Your task to perform on an android device: turn on sleep mode Image 0: 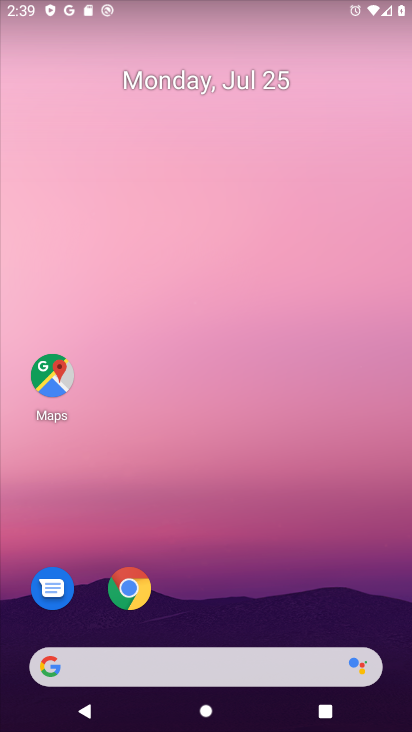
Step 0: press home button
Your task to perform on an android device: turn on sleep mode Image 1: 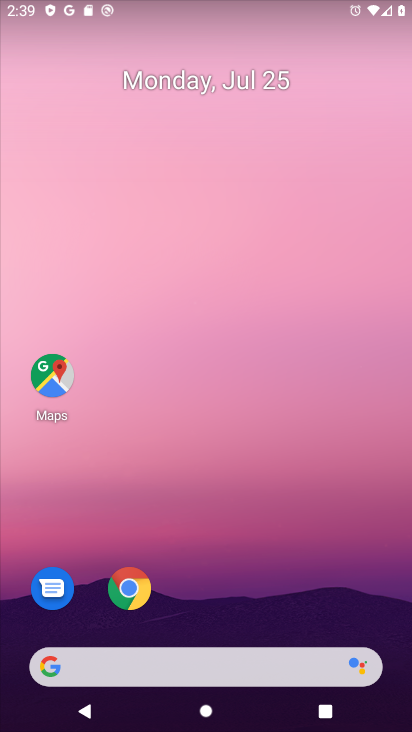
Step 1: drag from (214, 627) to (190, 27)
Your task to perform on an android device: turn on sleep mode Image 2: 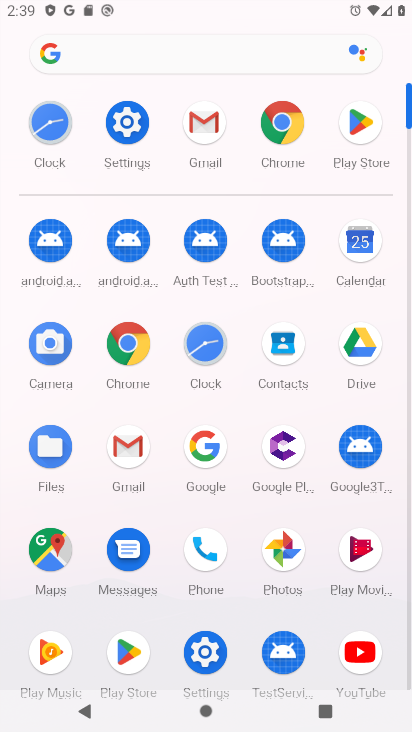
Step 2: click (127, 118)
Your task to perform on an android device: turn on sleep mode Image 3: 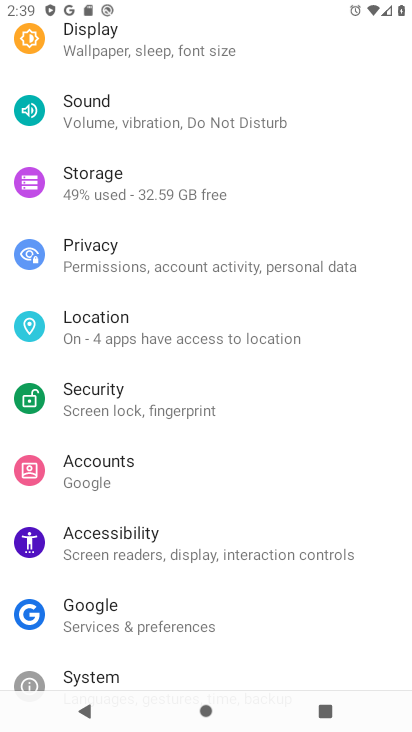
Step 3: drag from (183, 111) to (221, 413)
Your task to perform on an android device: turn on sleep mode Image 4: 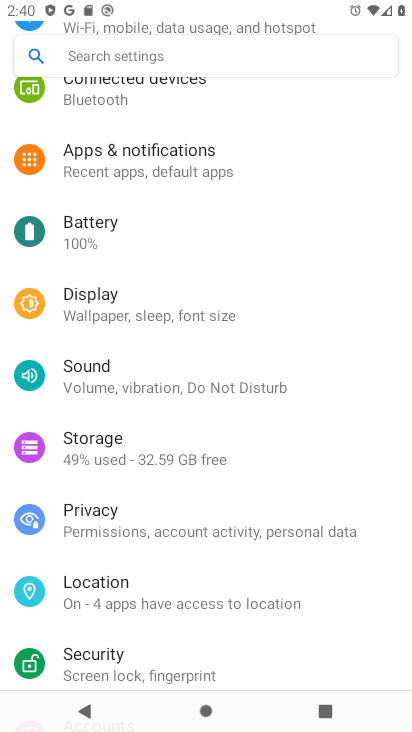
Step 4: click (126, 299)
Your task to perform on an android device: turn on sleep mode Image 5: 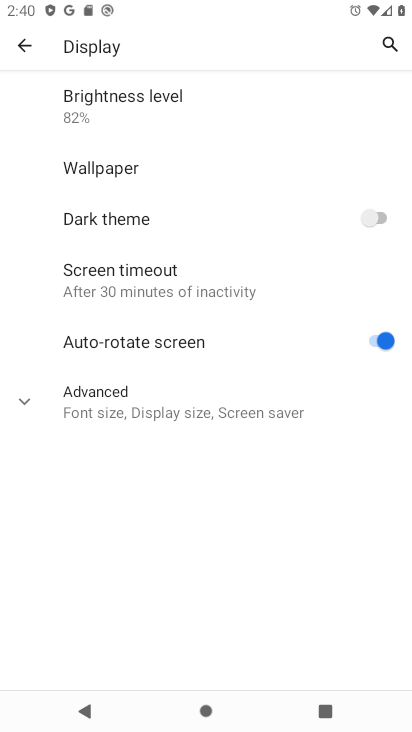
Step 5: click (20, 396)
Your task to perform on an android device: turn on sleep mode Image 6: 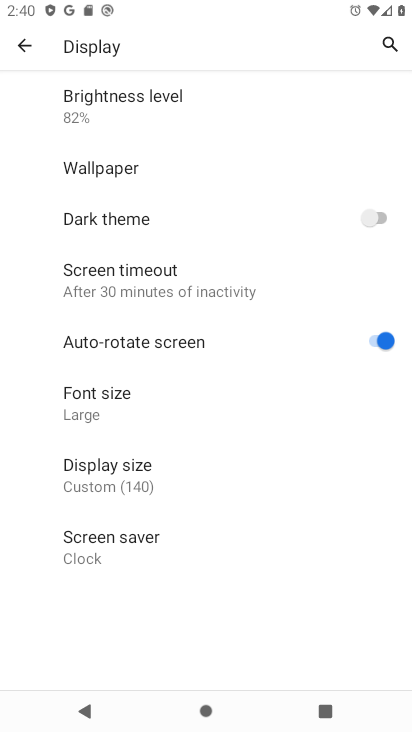
Step 6: task complete